Your task to perform on an android device: toggle pop-ups in chrome Image 0: 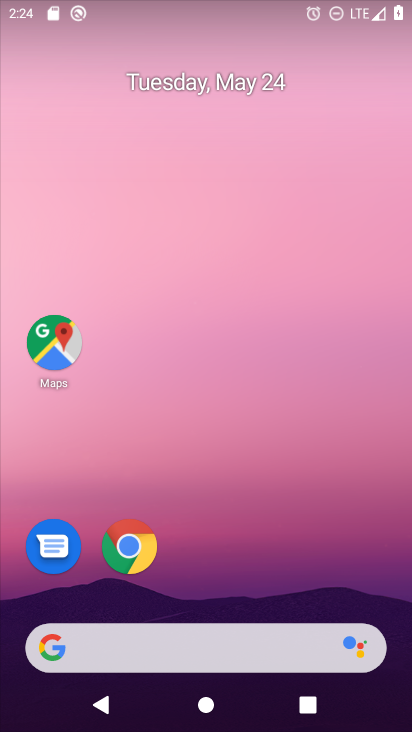
Step 0: drag from (255, 606) to (240, 82)
Your task to perform on an android device: toggle pop-ups in chrome Image 1: 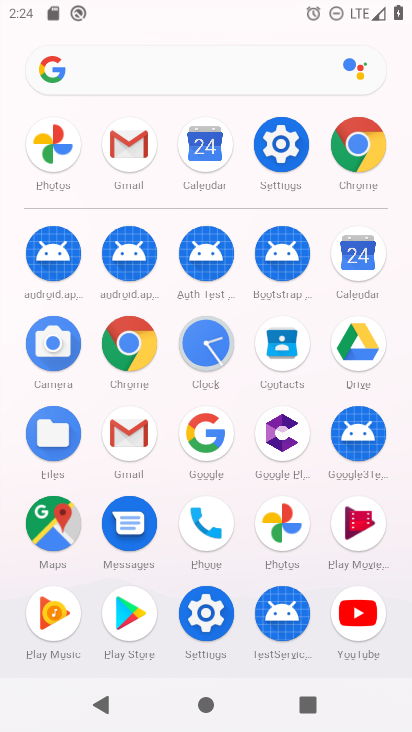
Step 1: click (125, 358)
Your task to perform on an android device: toggle pop-ups in chrome Image 2: 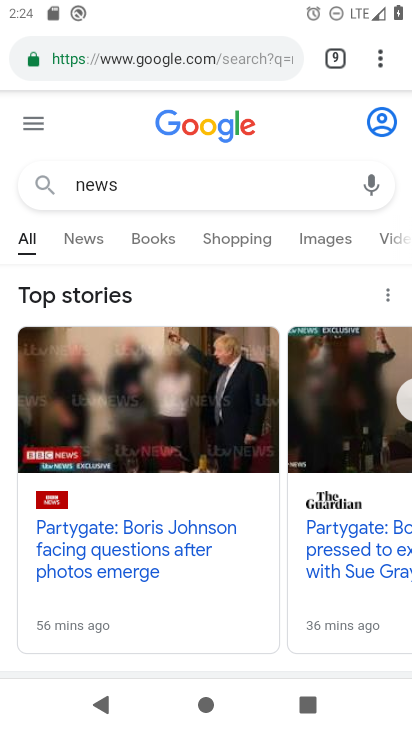
Step 2: click (376, 59)
Your task to perform on an android device: toggle pop-ups in chrome Image 3: 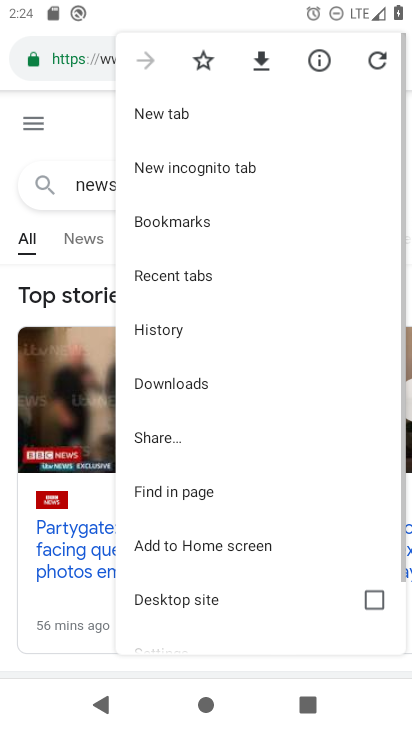
Step 3: drag from (226, 608) to (202, 87)
Your task to perform on an android device: toggle pop-ups in chrome Image 4: 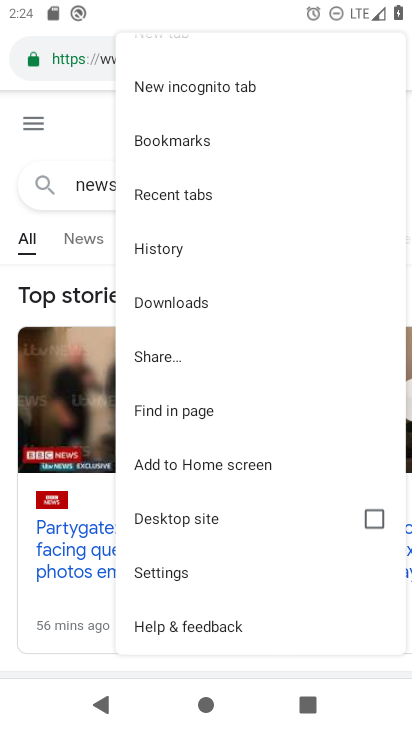
Step 4: click (202, 584)
Your task to perform on an android device: toggle pop-ups in chrome Image 5: 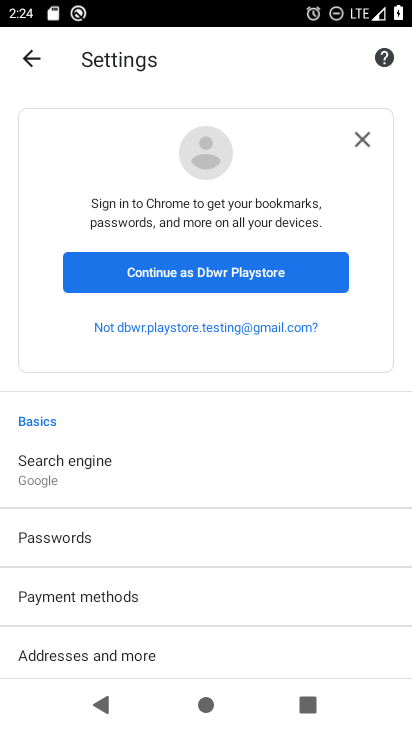
Step 5: drag from (218, 603) to (233, 14)
Your task to perform on an android device: toggle pop-ups in chrome Image 6: 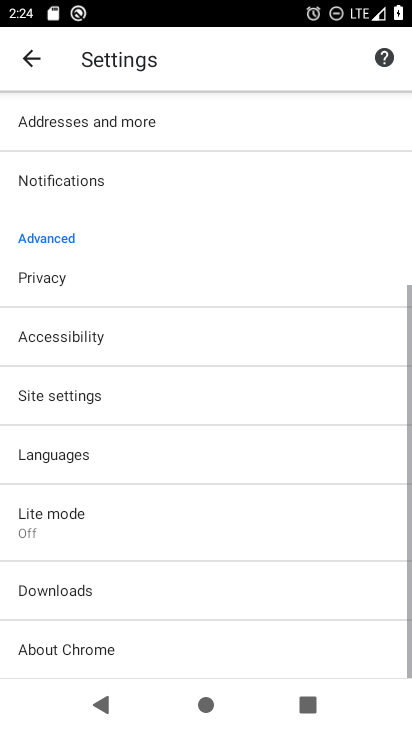
Step 6: click (167, 392)
Your task to perform on an android device: toggle pop-ups in chrome Image 7: 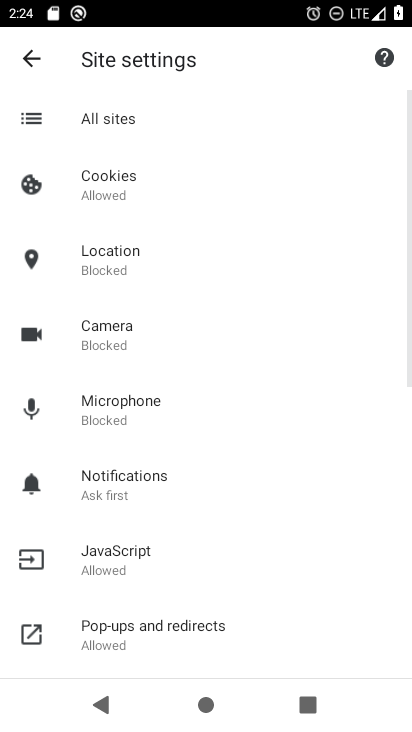
Step 7: click (171, 636)
Your task to perform on an android device: toggle pop-ups in chrome Image 8: 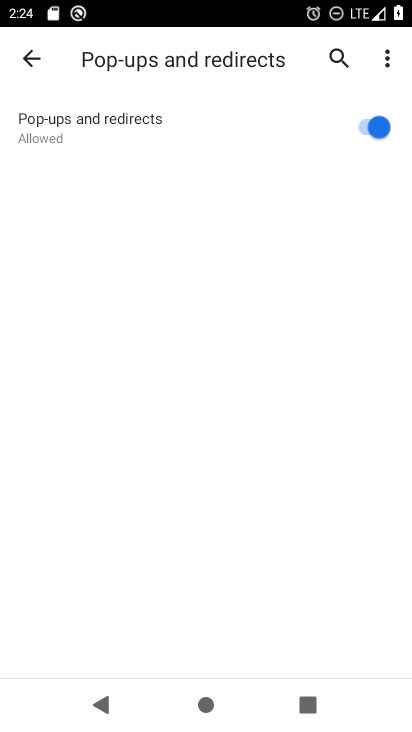
Step 8: click (366, 128)
Your task to perform on an android device: toggle pop-ups in chrome Image 9: 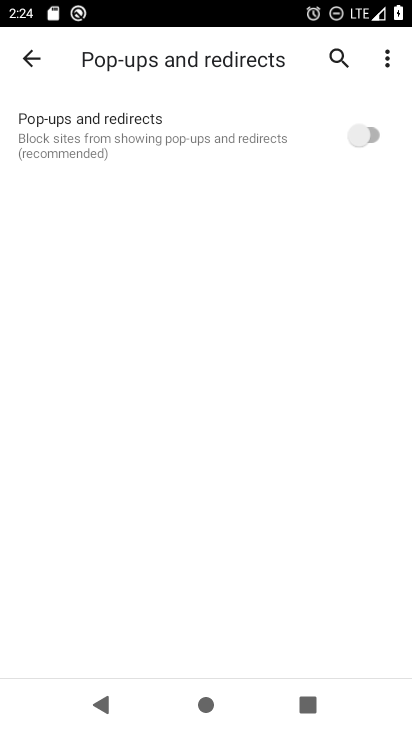
Step 9: task complete